Your task to perform on an android device: turn notification dots off Image 0: 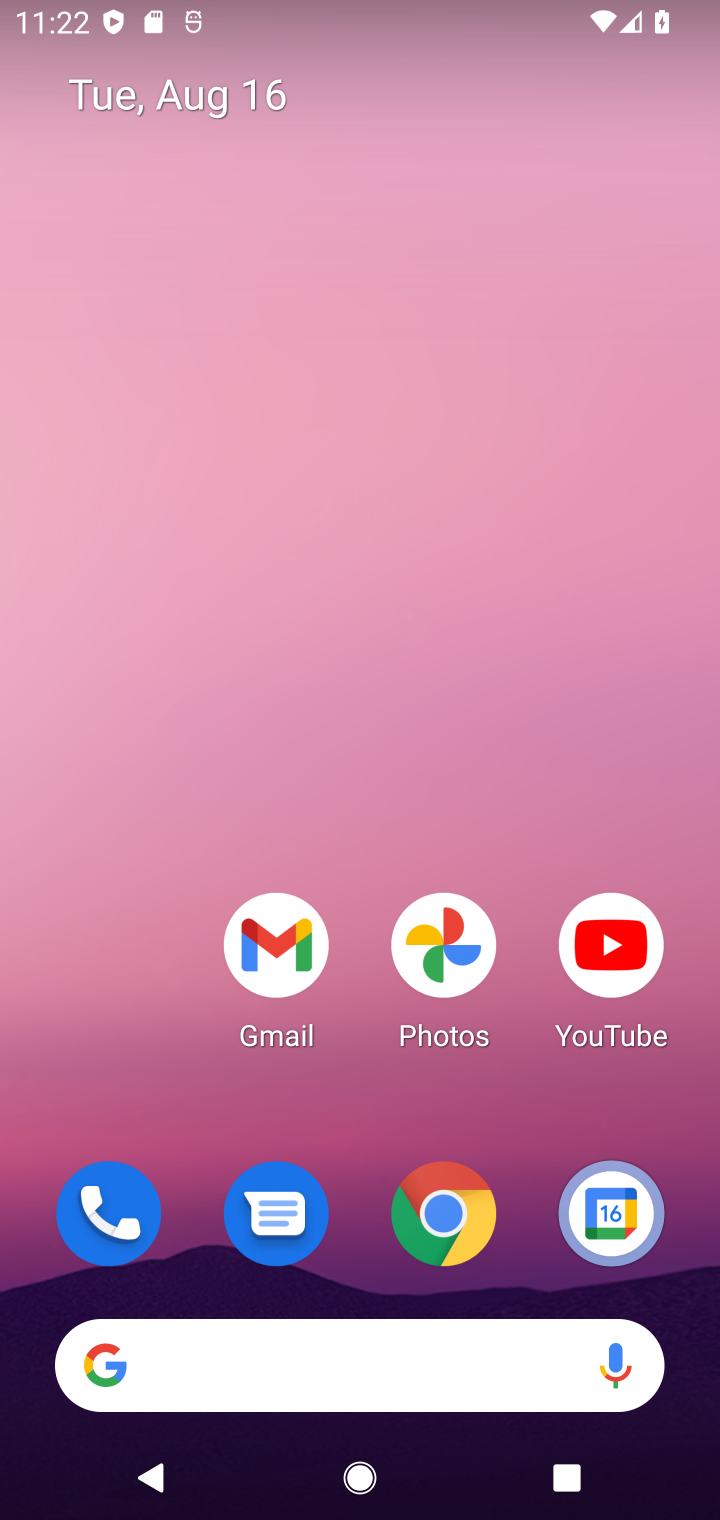
Step 0: drag from (539, 407) to (21, 343)
Your task to perform on an android device: turn notification dots off Image 1: 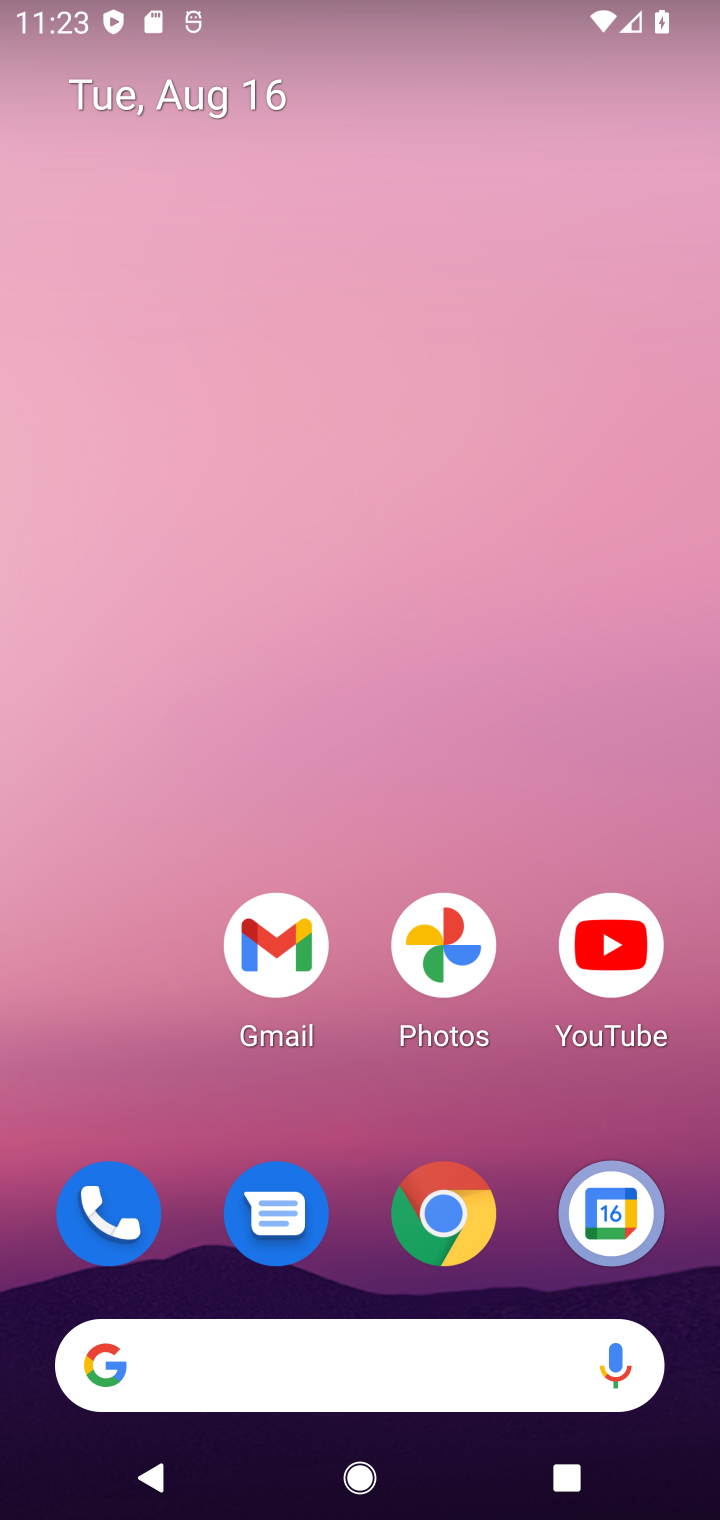
Step 1: drag from (400, 962) to (25, 489)
Your task to perform on an android device: turn notification dots off Image 2: 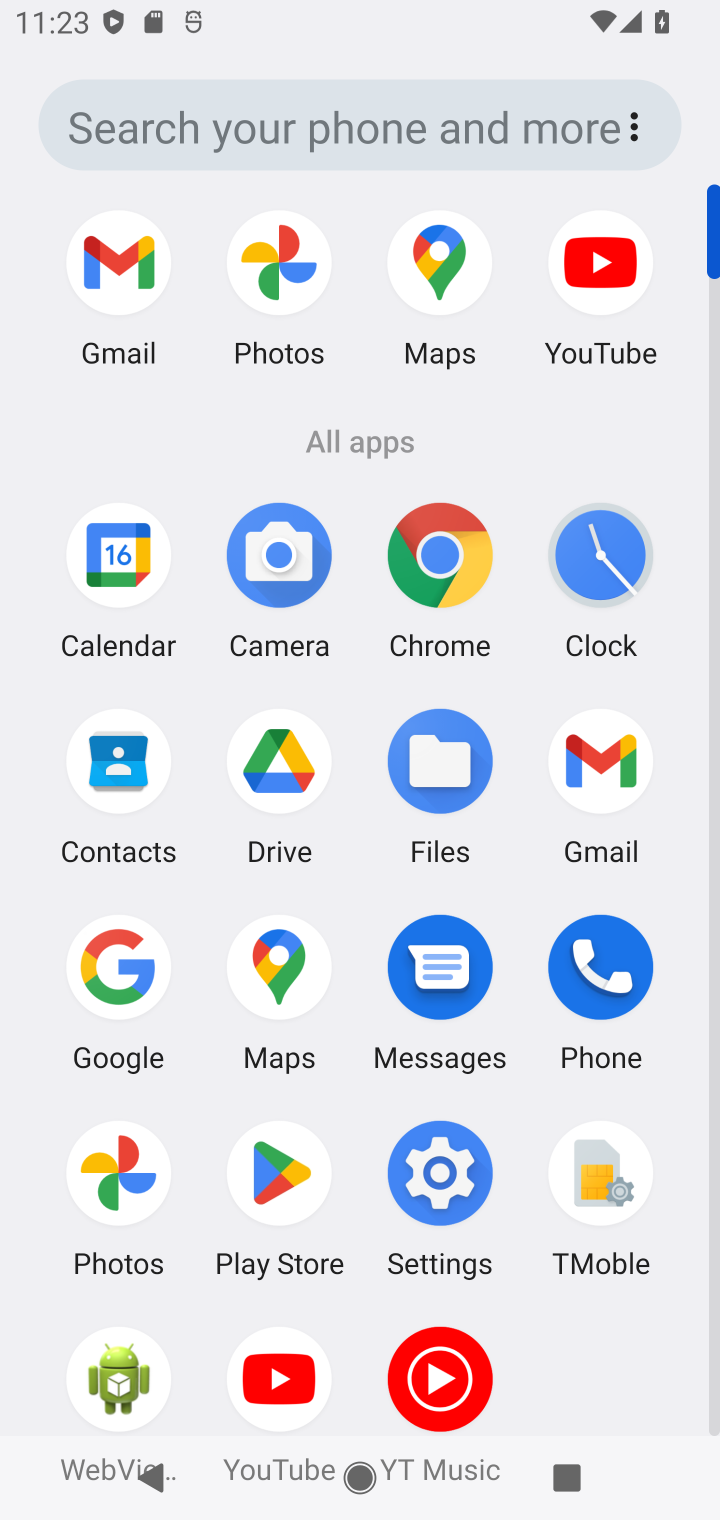
Step 2: click (457, 1154)
Your task to perform on an android device: turn notification dots off Image 3: 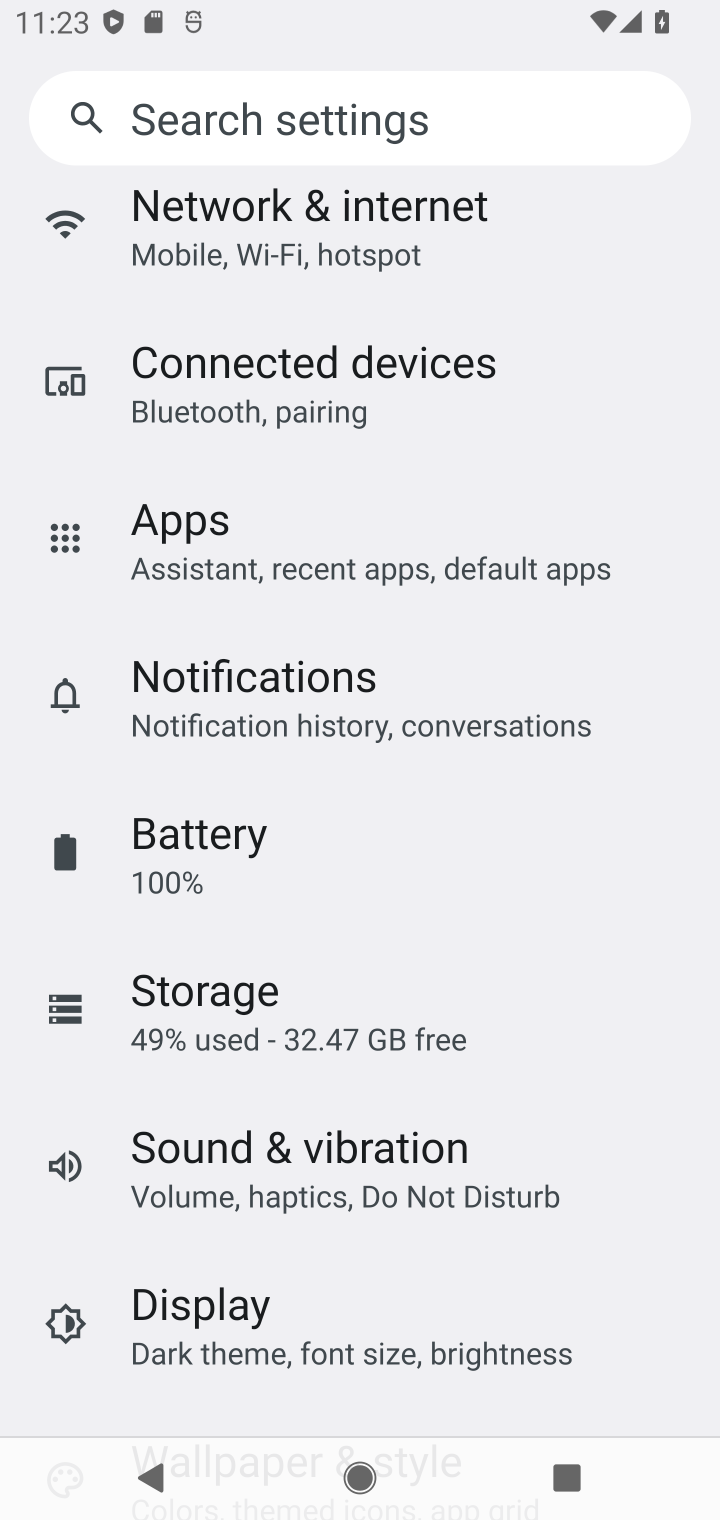
Step 3: click (403, 706)
Your task to perform on an android device: turn notification dots off Image 4: 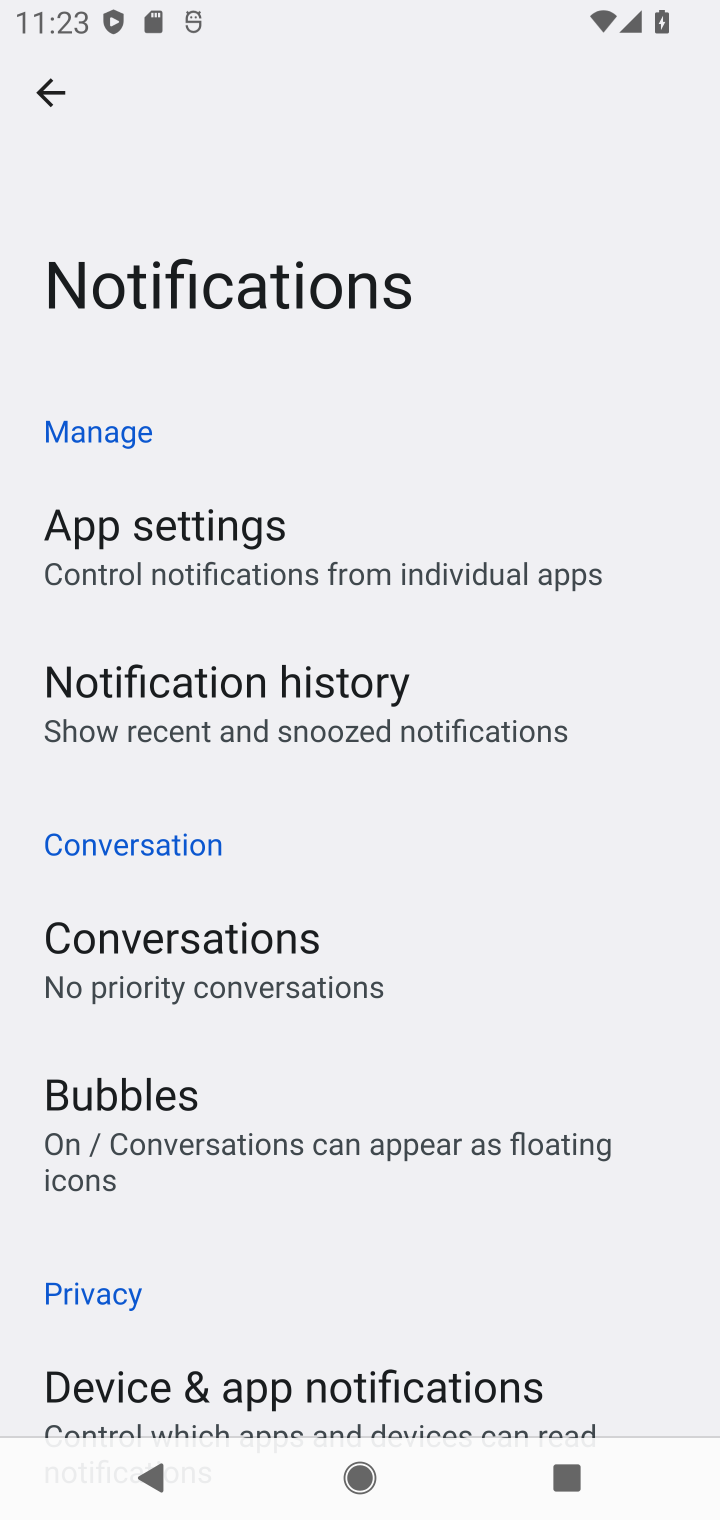
Step 4: task complete